Your task to perform on an android device: Add "logitech g910" to the cart on newegg Image 0: 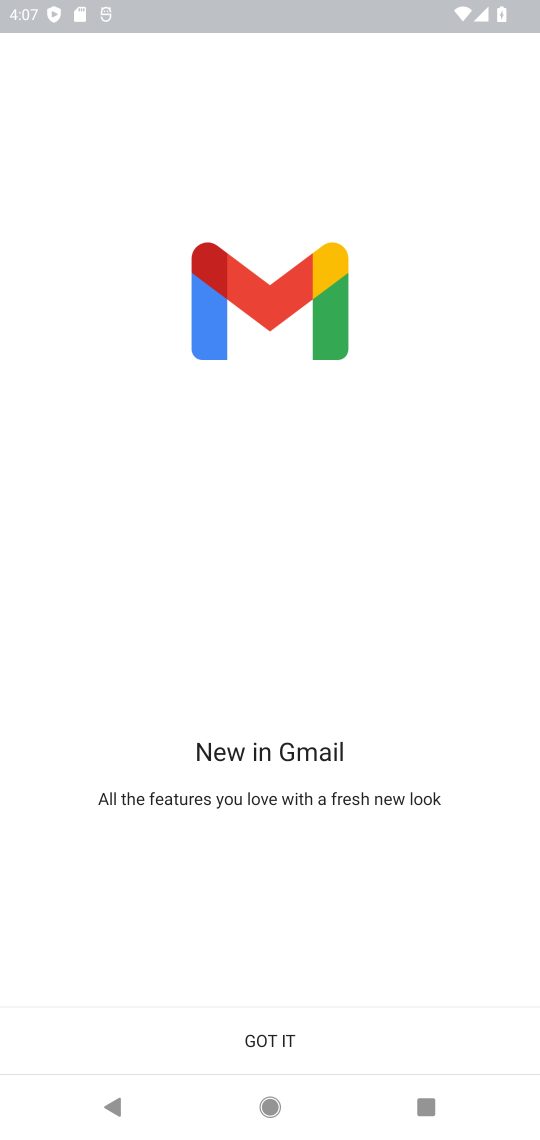
Step 0: press home button
Your task to perform on an android device: Add "logitech g910" to the cart on newegg Image 1: 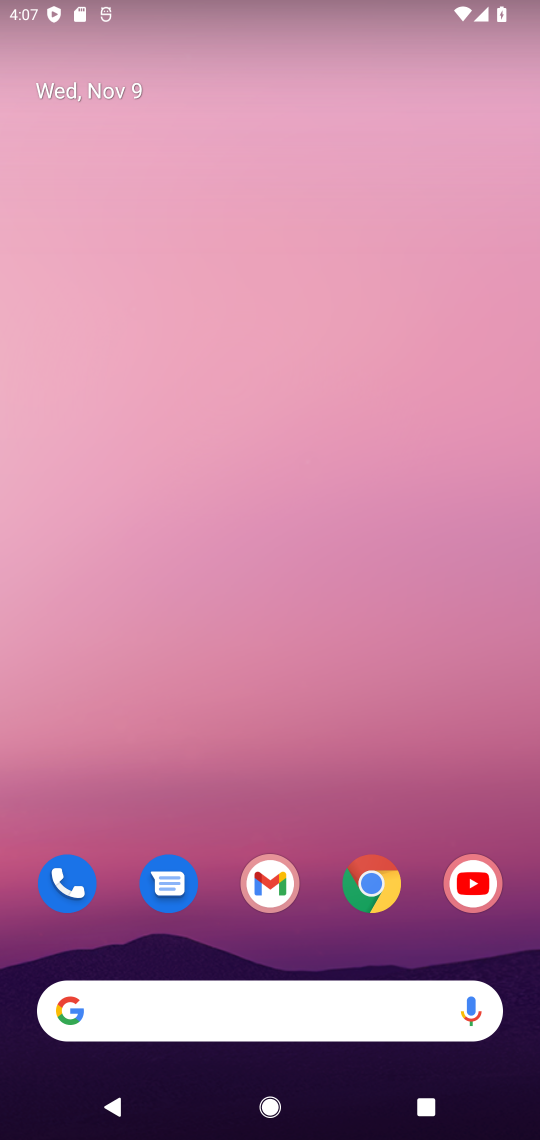
Step 1: click (373, 878)
Your task to perform on an android device: Add "logitech g910" to the cart on newegg Image 2: 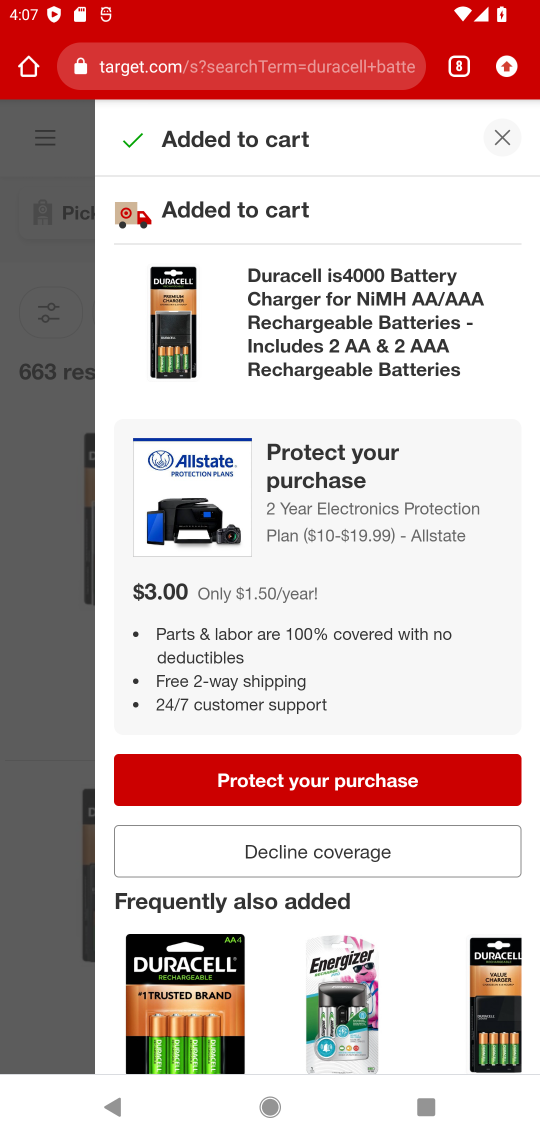
Step 2: click (450, 65)
Your task to perform on an android device: Add "logitech g910" to the cart on newegg Image 3: 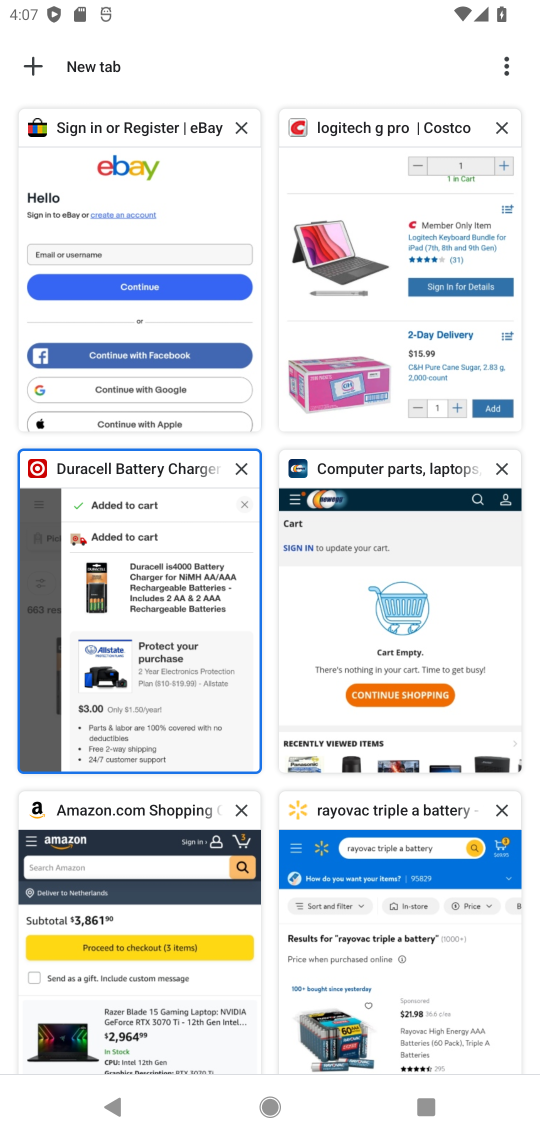
Step 3: click (345, 539)
Your task to perform on an android device: Add "logitech g910" to the cart on newegg Image 4: 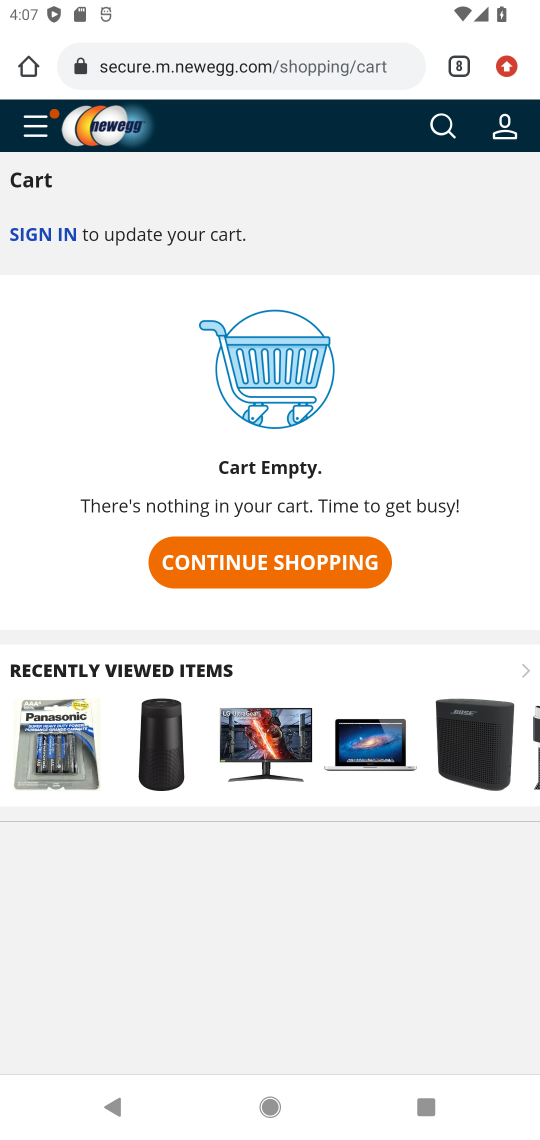
Step 4: click (437, 129)
Your task to perform on an android device: Add "logitech g910" to the cart on newegg Image 5: 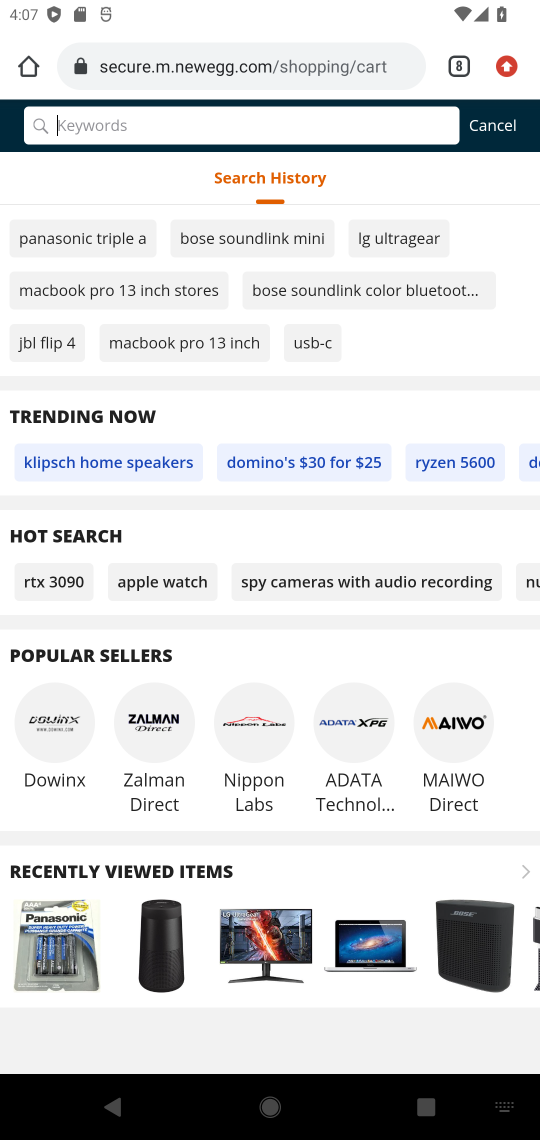
Step 5: type "logitech g910"
Your task to perform on an android device: Add "logitech g910" to the cart on newegg Image 6: 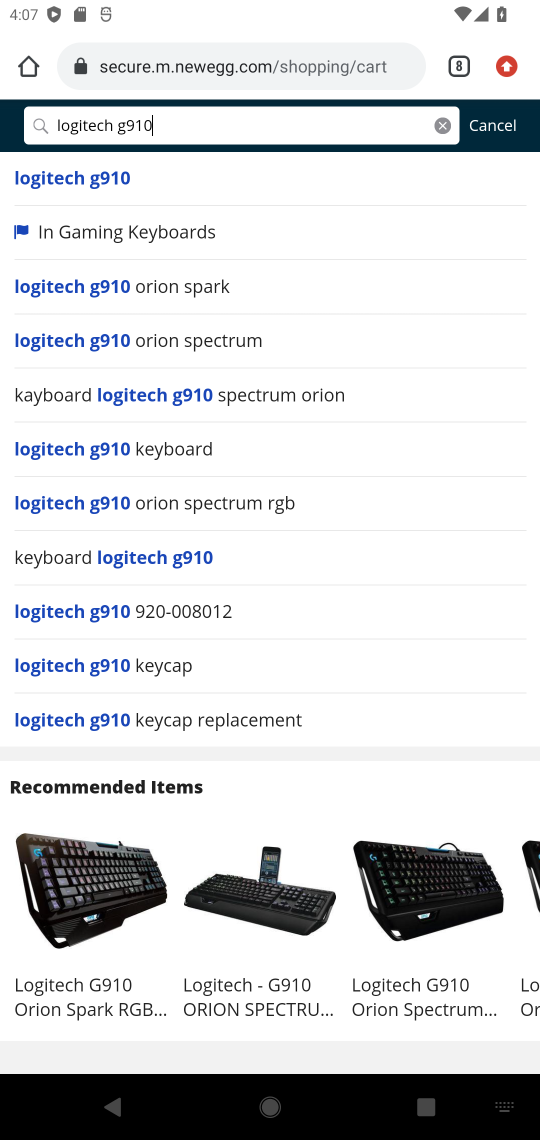
Step 6: click (106, 174)
Your task to perform on an android device: Add "logitech g910" to the cart on newegg Image 7: 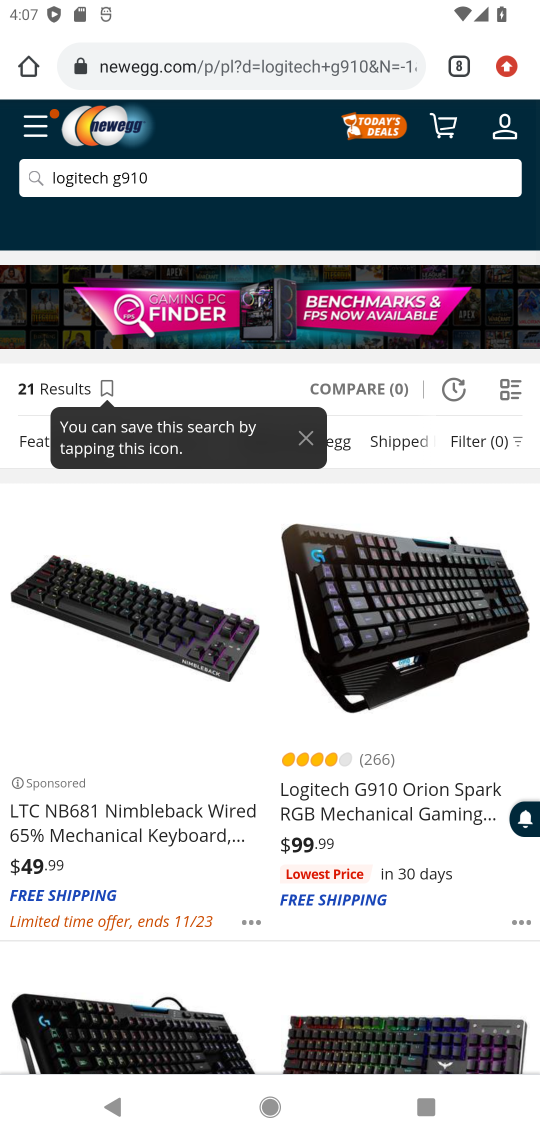
Step 7: click (341, 788)
Your task to perform on an android device: Add "logitech g910" to the cart on newegg Image 8: 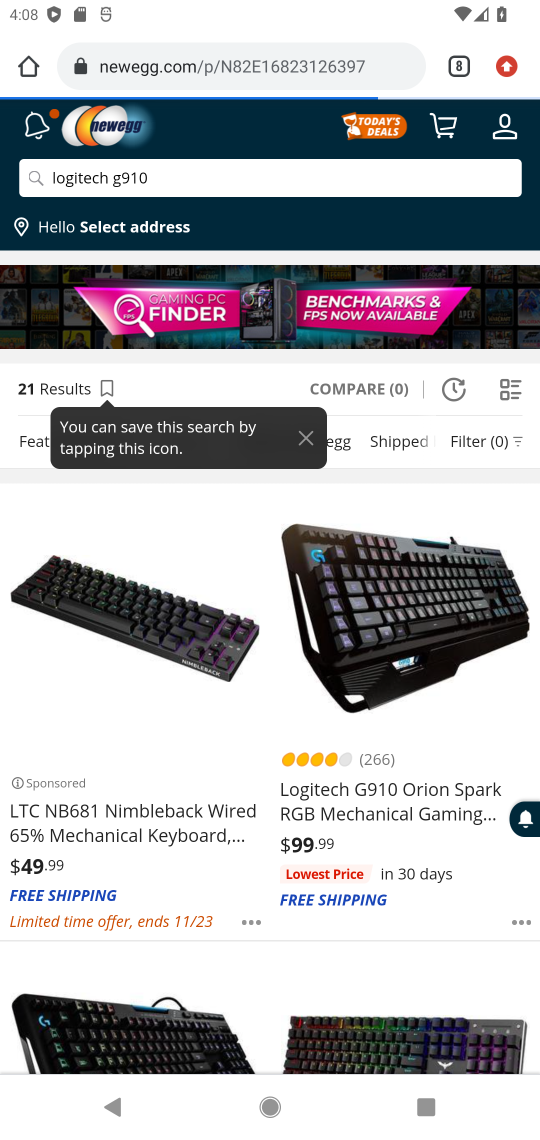
Step 8: click (418, 795)
Your task to perform on an android device: Add "logitech g910" to the cart on newegg Image 9: 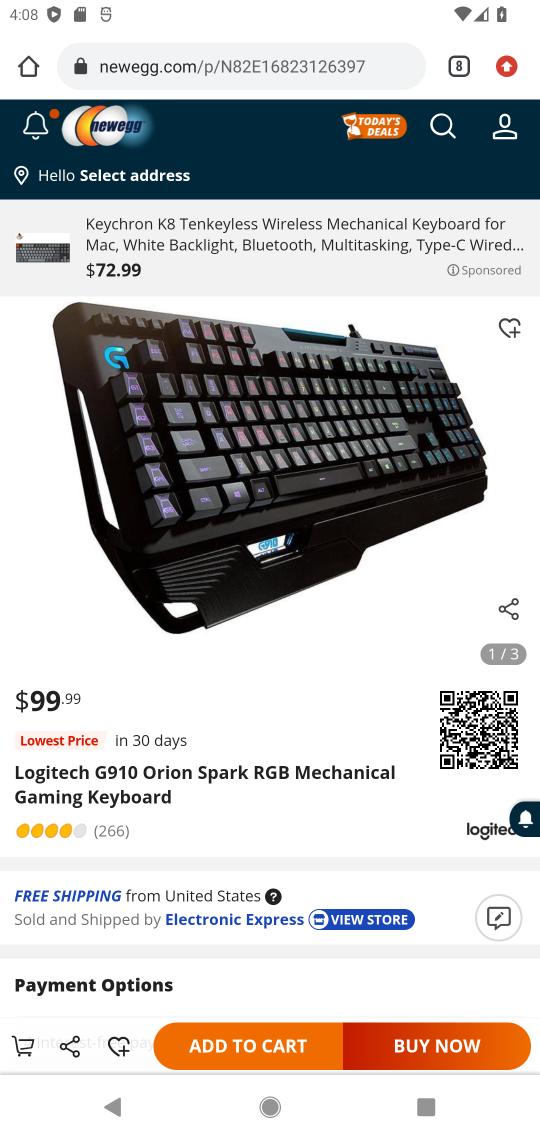
Step 9: click (284, 1042)
Your task to perform on an android device: Add "logitech g910" to the cart on newegg Image 10: 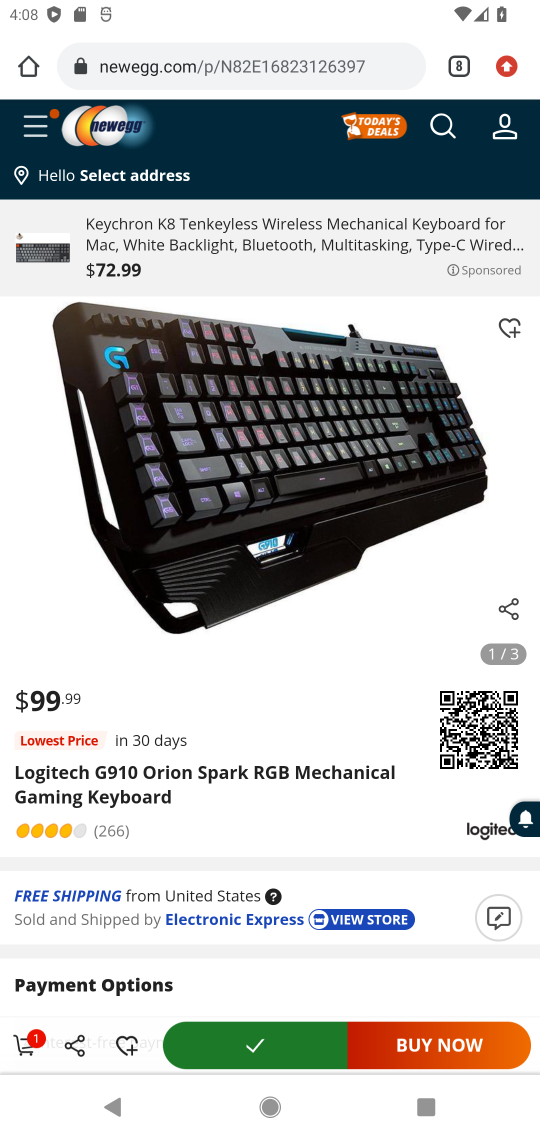
Step 10: task complete